Your task to perform on an android device: Open settings Image 0: 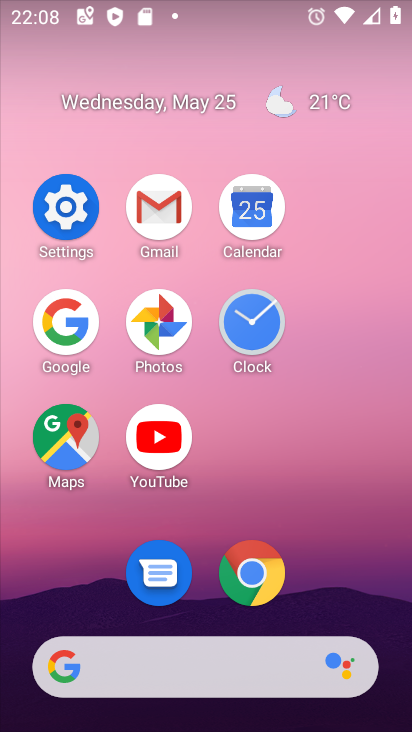
Step 0: click (57, 220)
Your task to perform on an android device: Open settings Image 1: 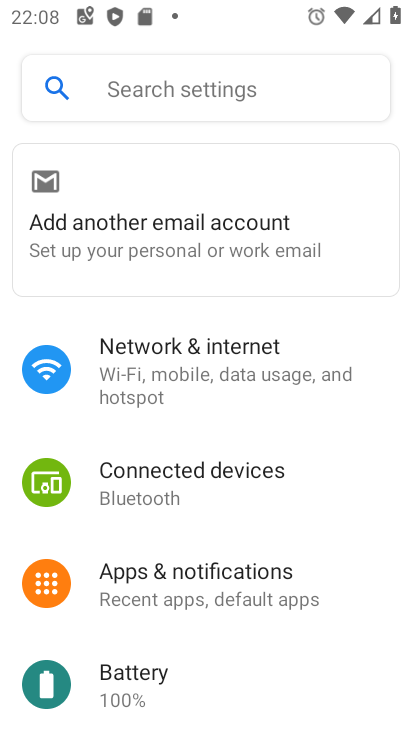
Step 1: task complete